Your task to perform on an android device: change notification settings in the gmail app Image 0: 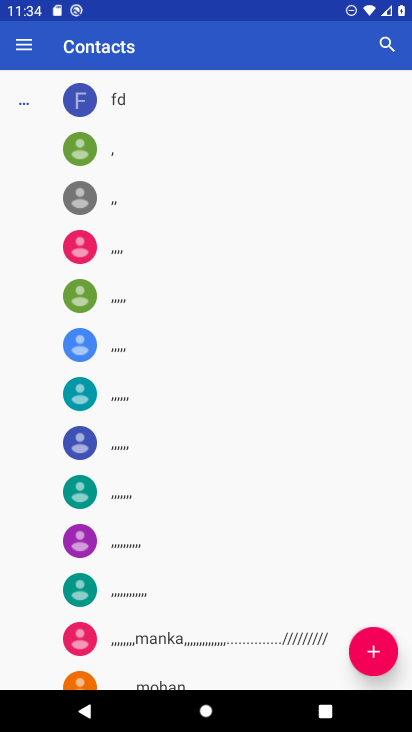
Step 0: press home button
Your task to perform on an android device: change notification settings in the gmail app Image 1: 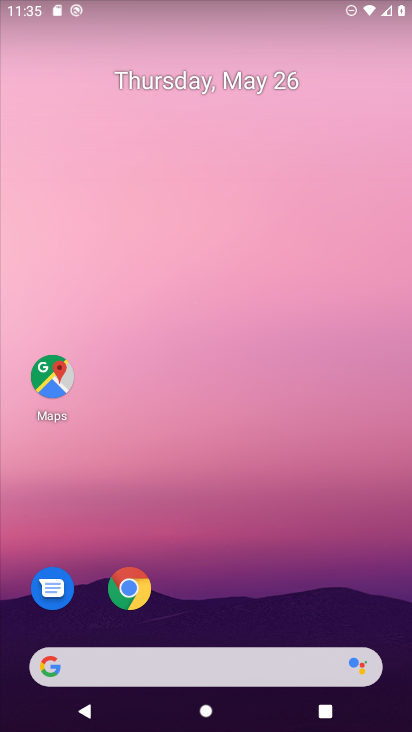
Step 1: drag from (359, 620) to (338, 43)
Your task to perform on an android device: change notification settings in the gmail app Image 2: 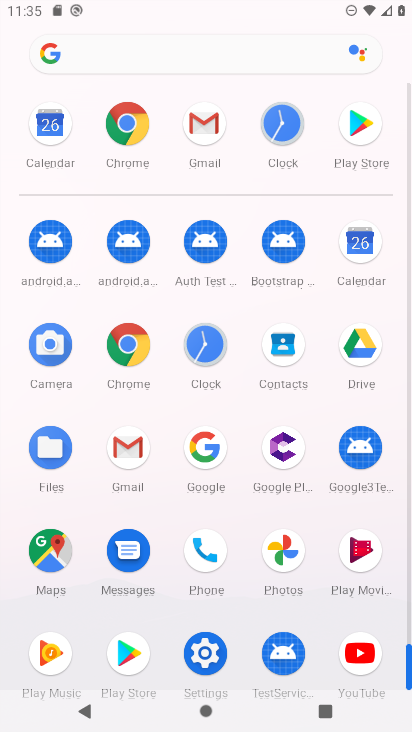
Step 2: click (410, 629)
Your task to perform on an android device: change notification settings in the gmail app Image 3: 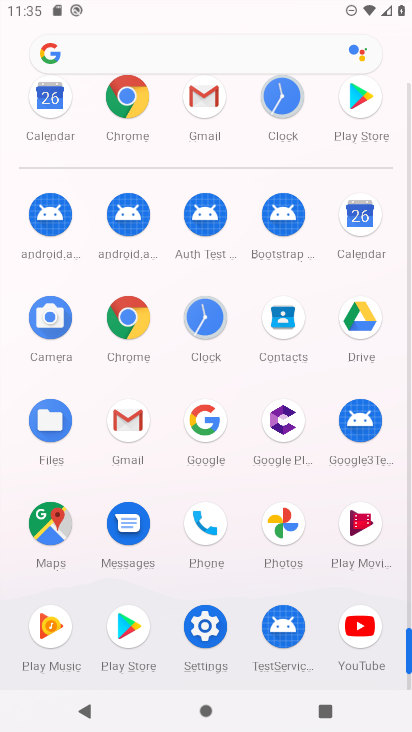
Step 3: click (123, 420)
Your task to perform on an android device: change notification settings in the gmail app Image 4: 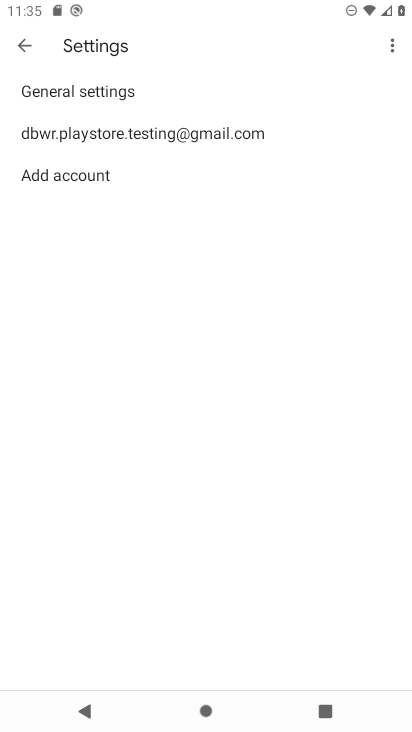
Step 4: click (138, 130)
Your task to perform on an android device: change notification settings in the gmail app Image 5: 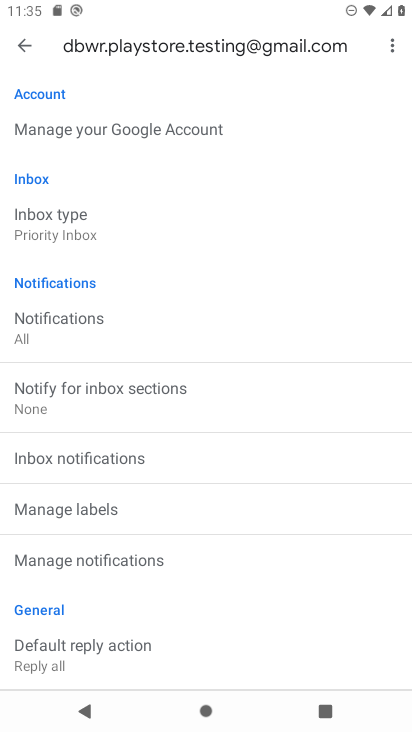
Step 5: click (116, 545)
Your task to perform on an android device: change notification settings in the gmail app Image 6: 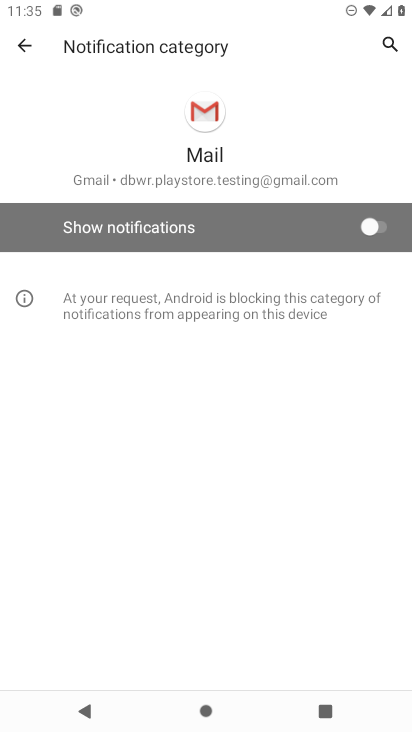
Step 6: click (379, 230)
Your task to perform on an android device: change notification settings in the gmail app Image 7: 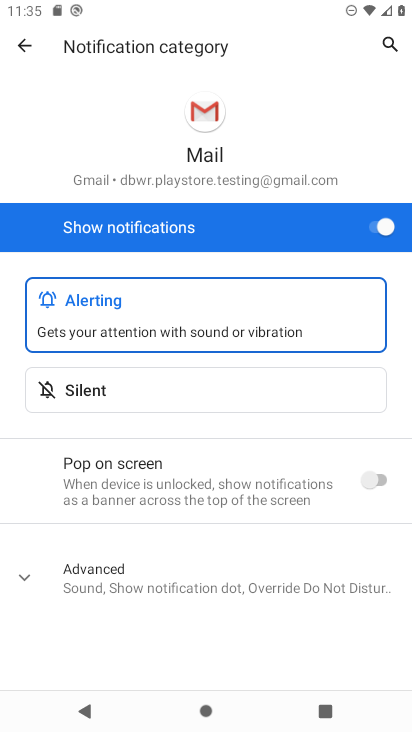
Step 7: task complete